Your task to perform on an android device: Empty the shopping cart on target. Search for usb-c to usb-a on target, select the first entry, and add it to the cart. Image 0: 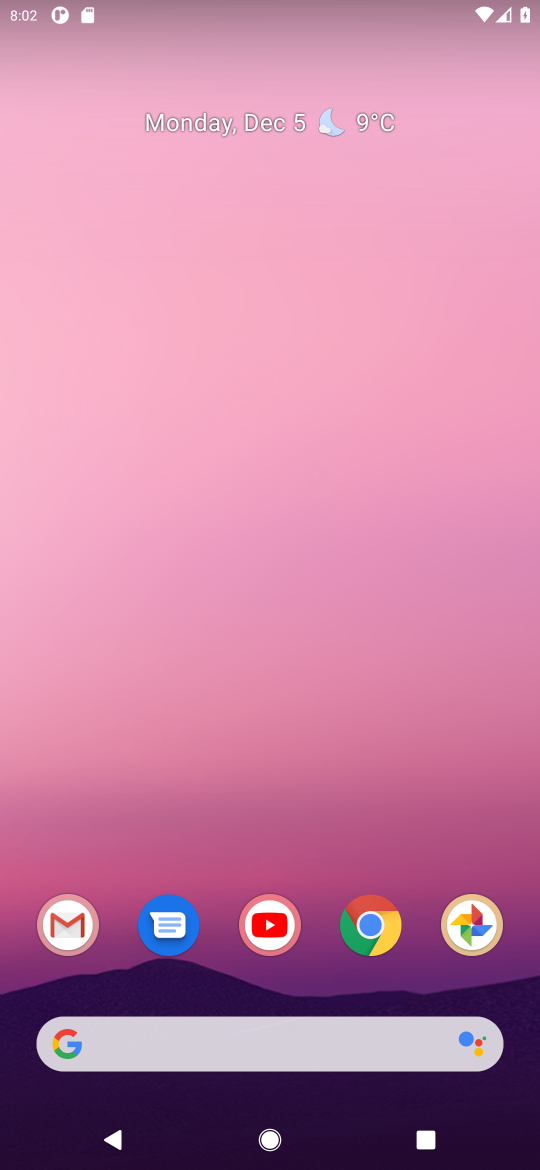
Step 0: click (370, 939)
Your task to perform on an android device: Empty the shopping cart on target. Search for usb-c to usb-a on target, select the first entry, and add it to the cart. Image 1: 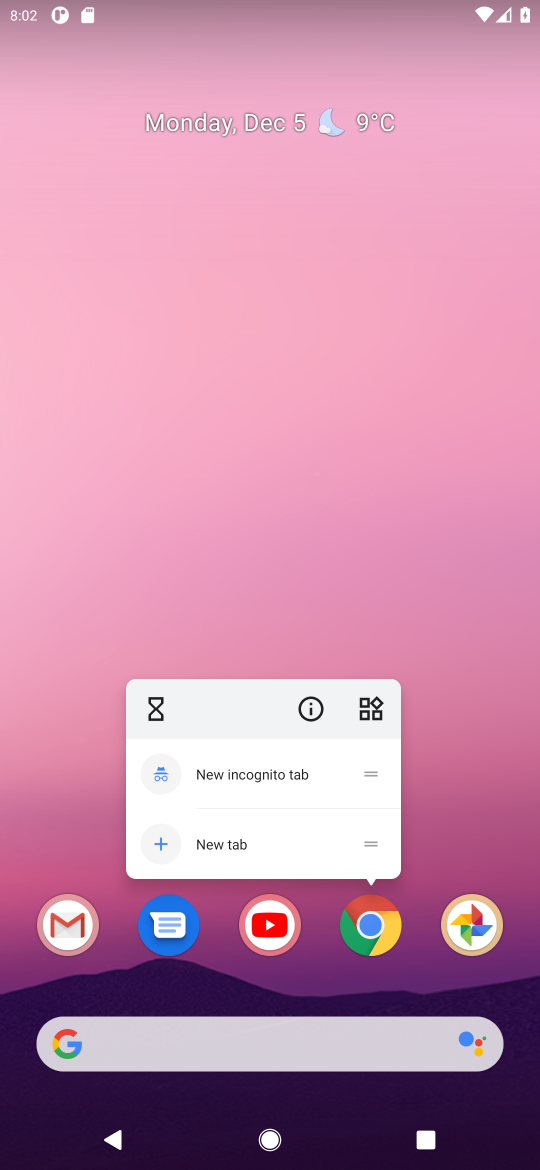
Step 1: click (367, 933)
Your task to perform on an android device: Empty the shopping cart on target. Search for usb-c to usb-a on target, select the first entry, and add it to the cart. Image 2: 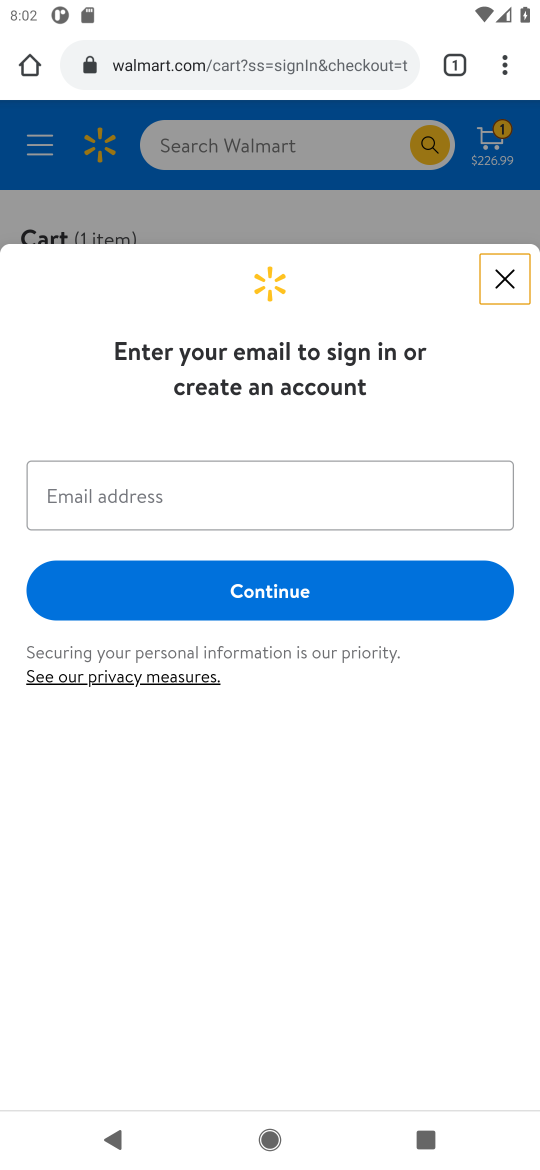
Step 2: click (204, 66)
Your task to perform on an android device: Empty the shopping cart on target. Search for usb-c to usb-a on target, select the first entry, and add it to the cart. Image 3: 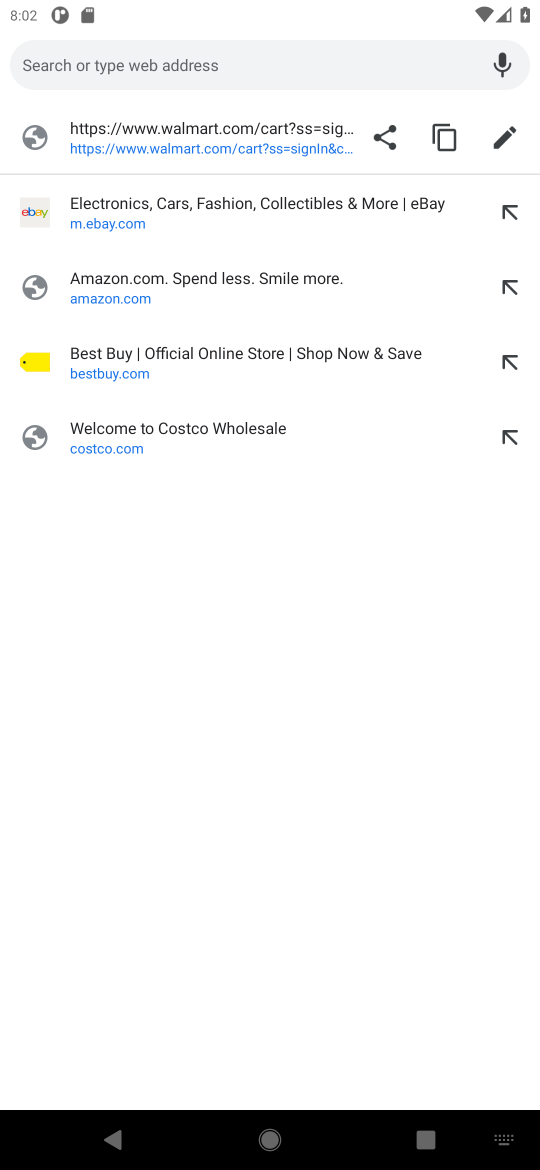
Step 3: type "target.com"
Your task to perform on an android device: Empty the shopping cart on target. Search for usb-c to usb-a on target, select the first entry, and add it to the cart. Image 4: 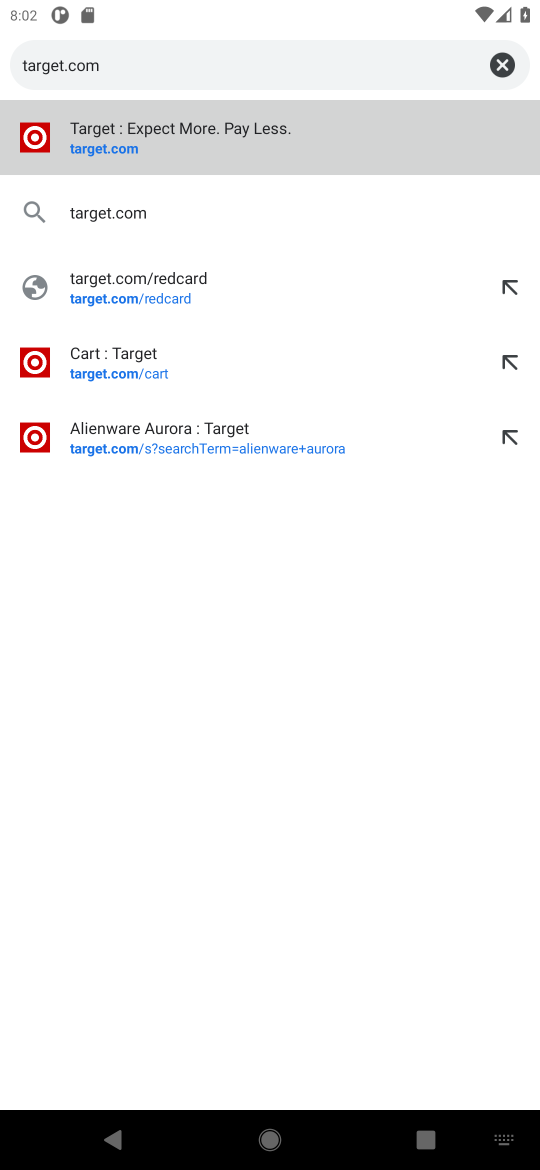
Step 4: click (110, 147)
Your task to perform on an android device: Empty the shopping cart on target. Search for usb-c to usb-a on target, select the first entry, and add it to the cart. Image 5: 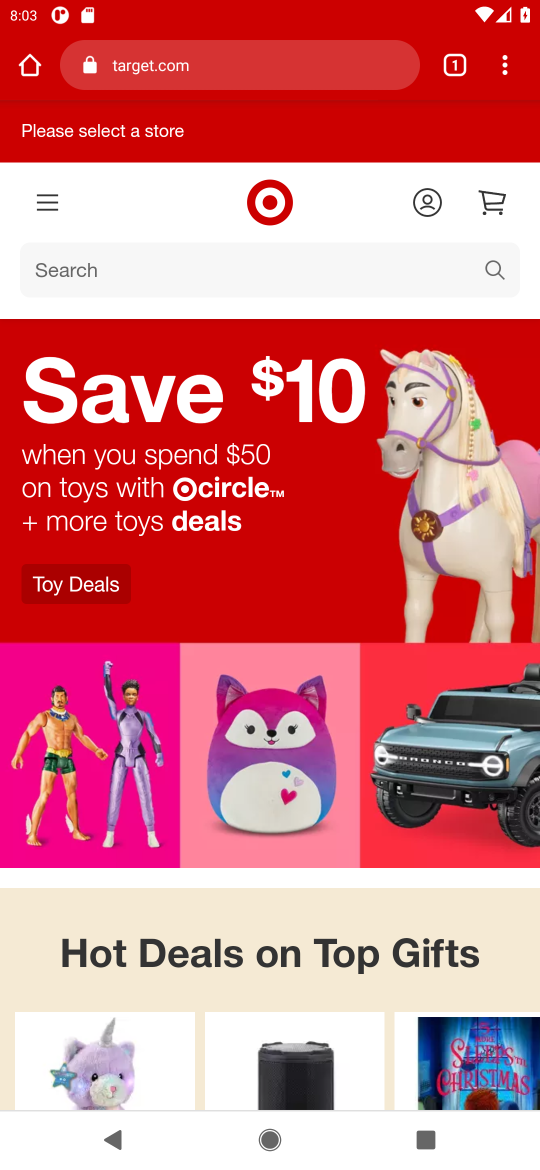
Step 5: click (485, 197)
Your task to perform on an android device: Empty the shopping cart on target. Search for usb-c to usb-a on target, select the first entry, and add it to the cart. Image 6: 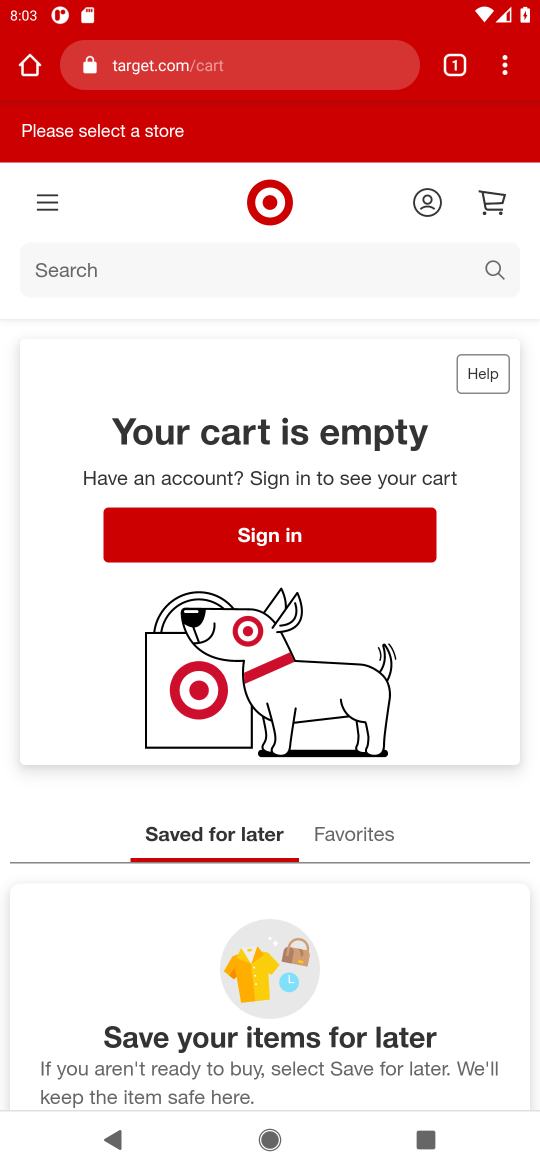
Step 6: click (57, 268)
Your task to perform on an android device: Empty the shopping cart on target. Search for usb-c to usb-a on target, select the first entry, and add it to the cart. Image 7: 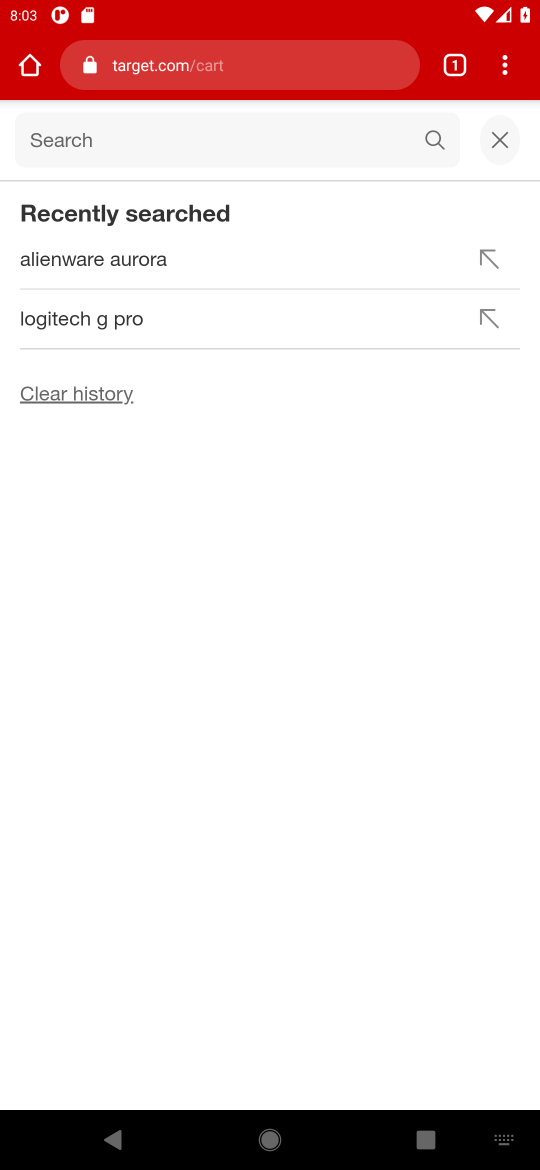
Step 7: type "usb-c to usb-a"
Your task to perform on an android device: Empty the shopping cart on target. Search for usb-c to usb-a on target, select the first entry, and add it to the cart. Image 8: 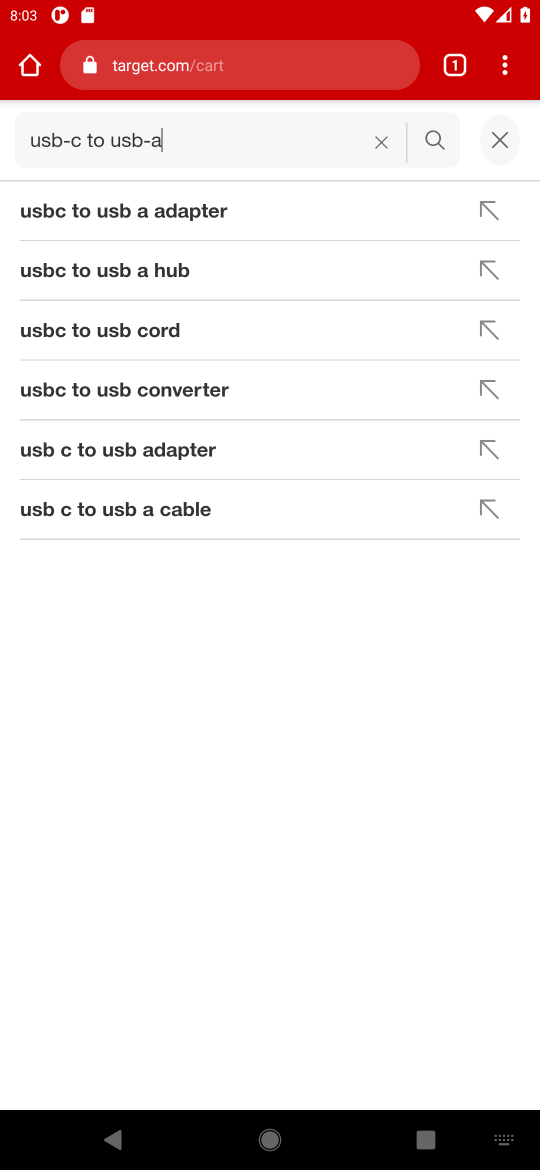
Step 8: click (435, 146)
Your task to perform on an android device: Empty the shopping cart on target. Search for usb-c to usb-a on target, select the first entry, and add it to the cart. Image 9: 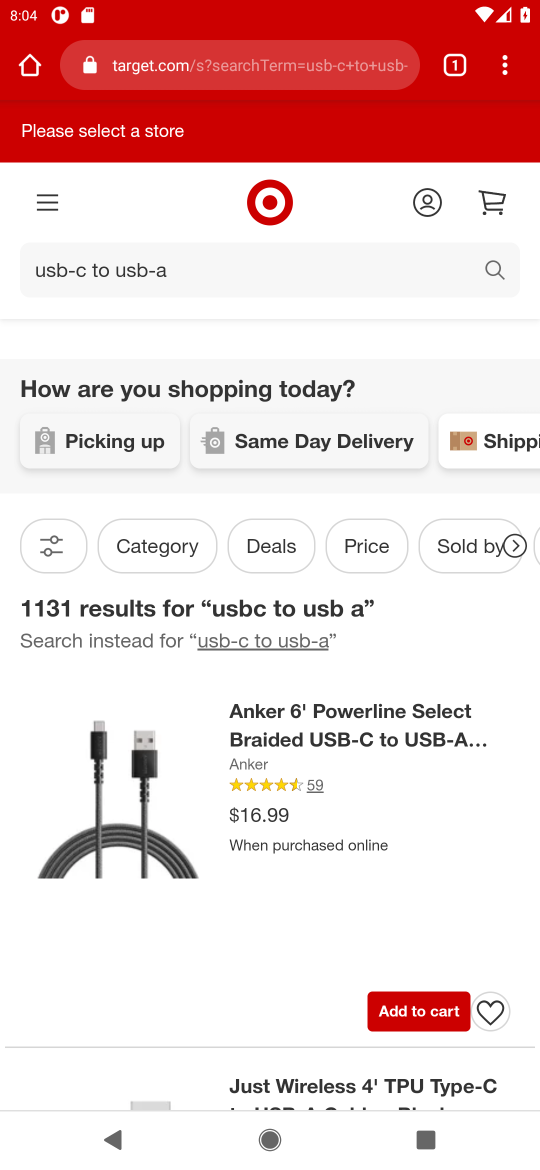
Step 9: click (419, 1005)
Your task to perform on an android device: Empty the shopping cart on target. Search for usb-c to usb-a on target, select the first entry, and add it to the cart. Image 10: 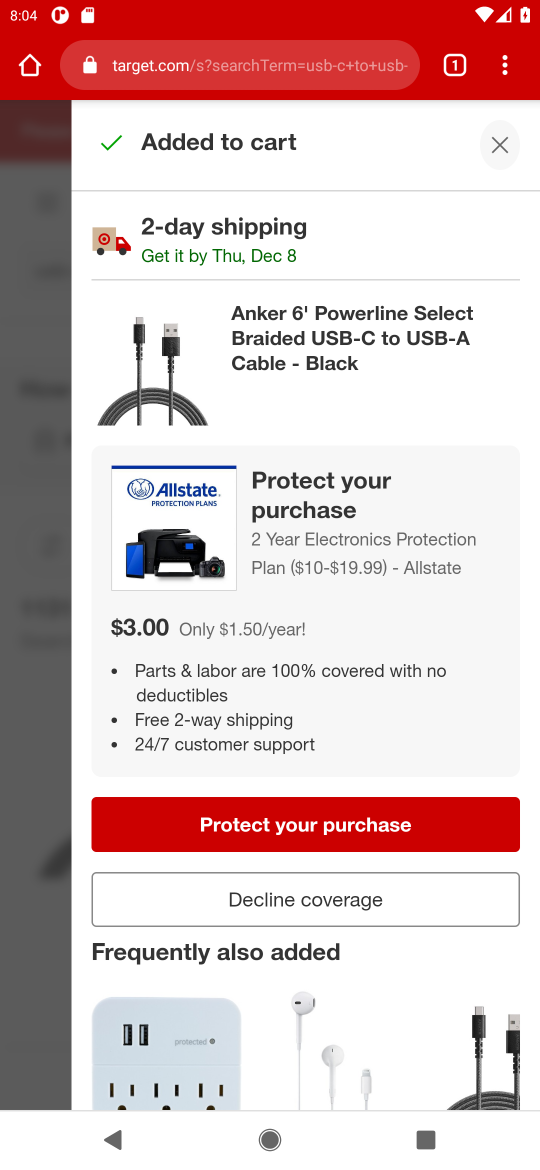
Step 10: click (500, 151)
Your task to perform on an android device: Empty the shopping cart on target. Search for usb-c to usb-a on target, select the first entry, and add it to the cart. Image 11: 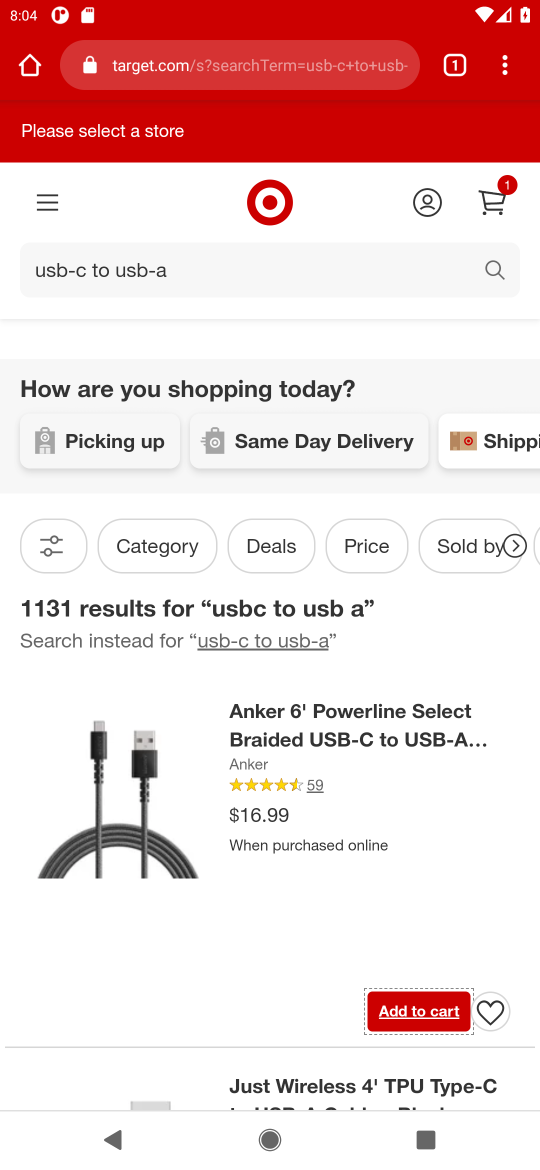
Step 11: task complete